Your task to perform on an android device: Open the stopwatch Image 0: 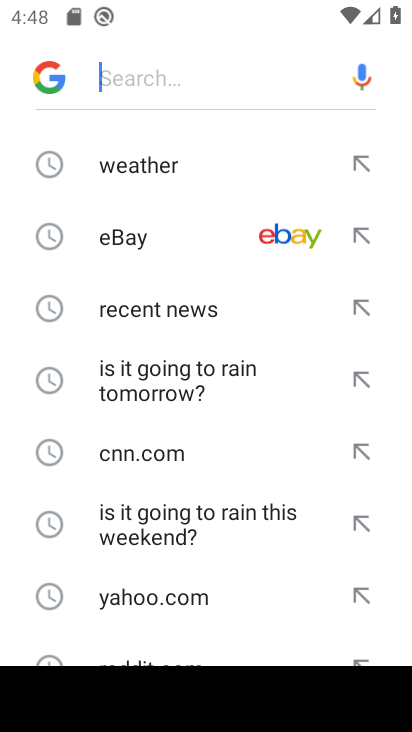
Step 0: press home button
Your task to perform on an android device: Open the stopwatch Image 1: 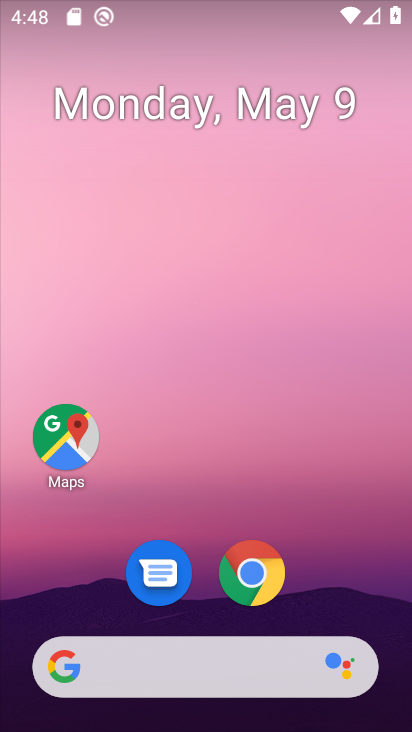
Step 1: drag from (371, 613) to (293, 101)
Your task to perform on an android device: Open the stopwatch Image 2: 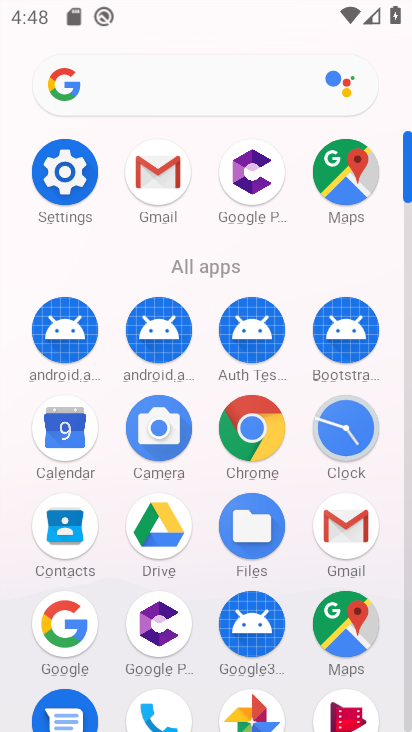
Step 2: click (345, 428)
Your task to perform on an android device: Open the stopwatch Image 3: 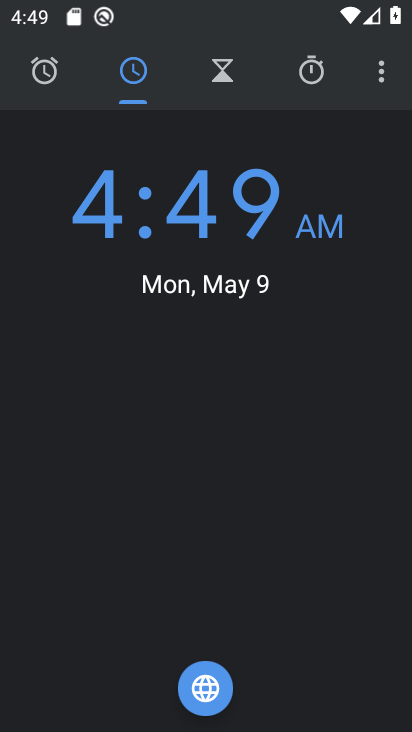
Step 3: click (312, 84)
Your task to perform on an android device: Open the stopwatch Image 4: 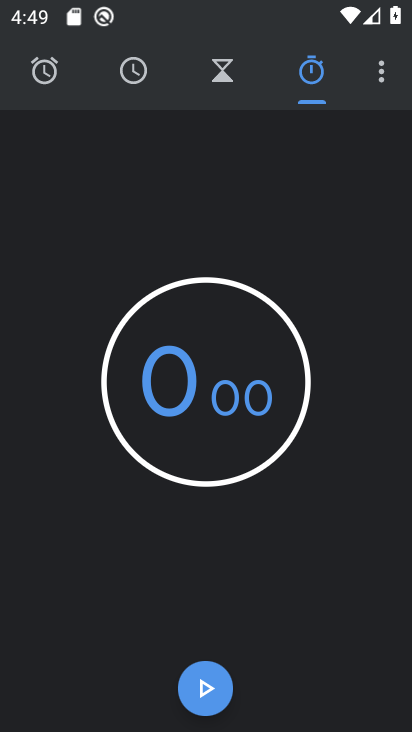
Step 4: task complete